Your task to perform on an android device: Open the calculator Image 0: 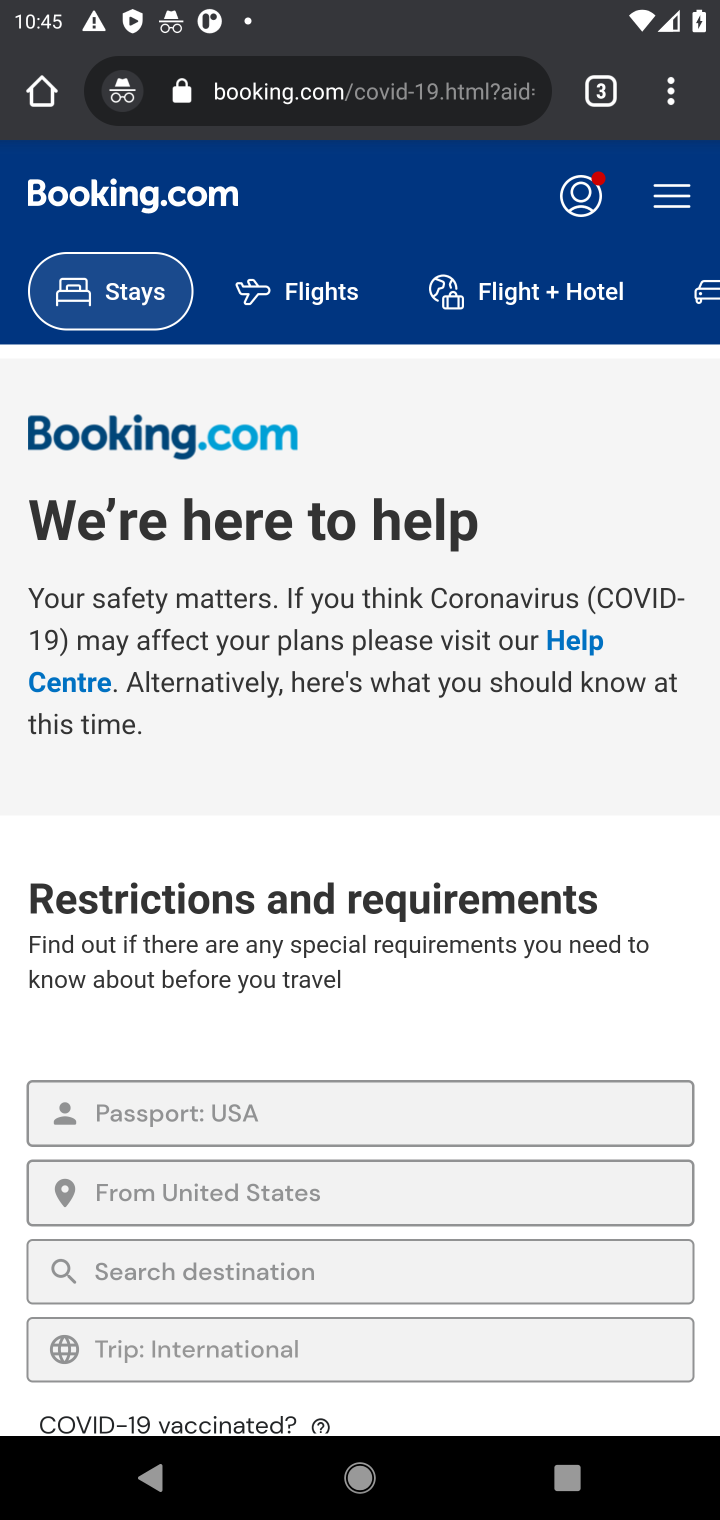
Step 0: press home button
Your task to perform on an android device: Open the calculator Image 1: 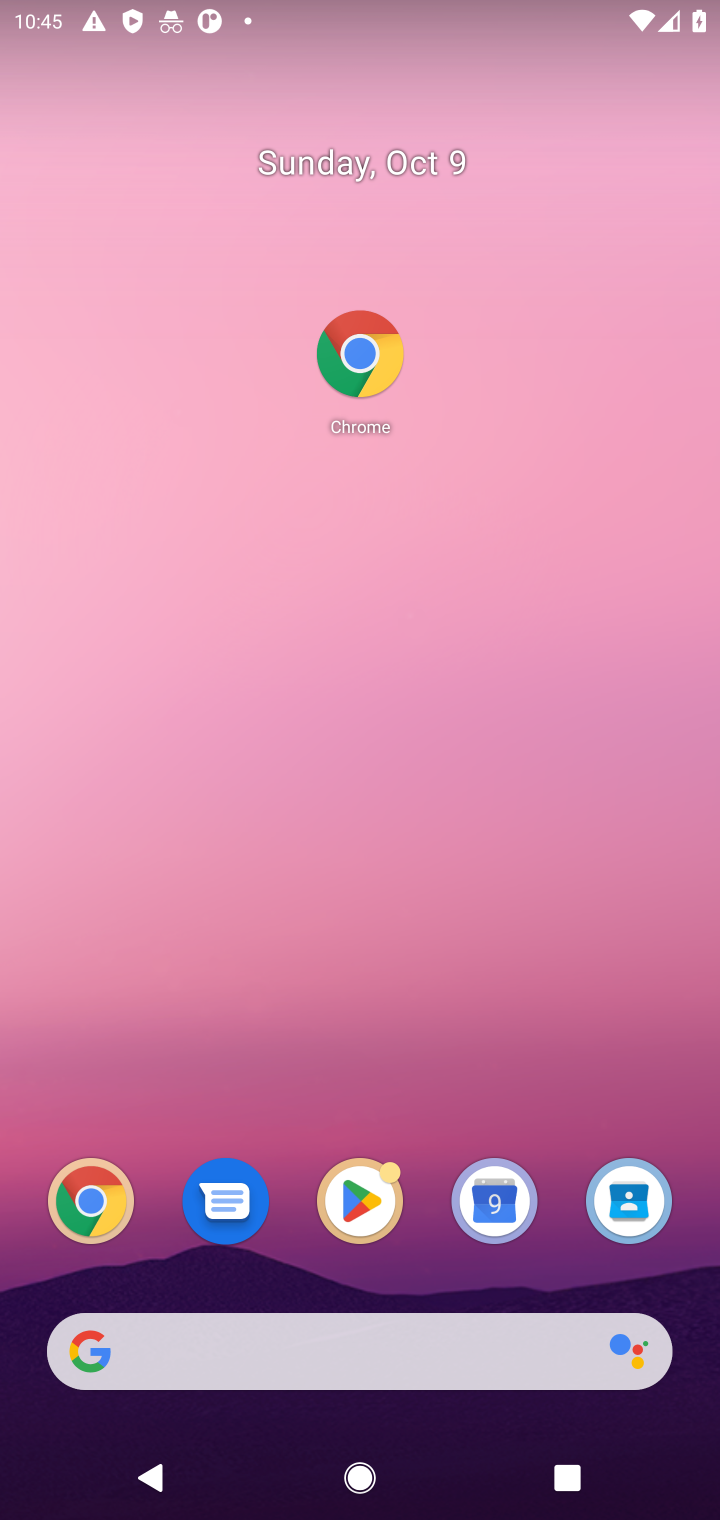
Step 1: drag from (422, 1289) to (193, 80)
Your task to perform on an android device: Open the calculator Image 2: 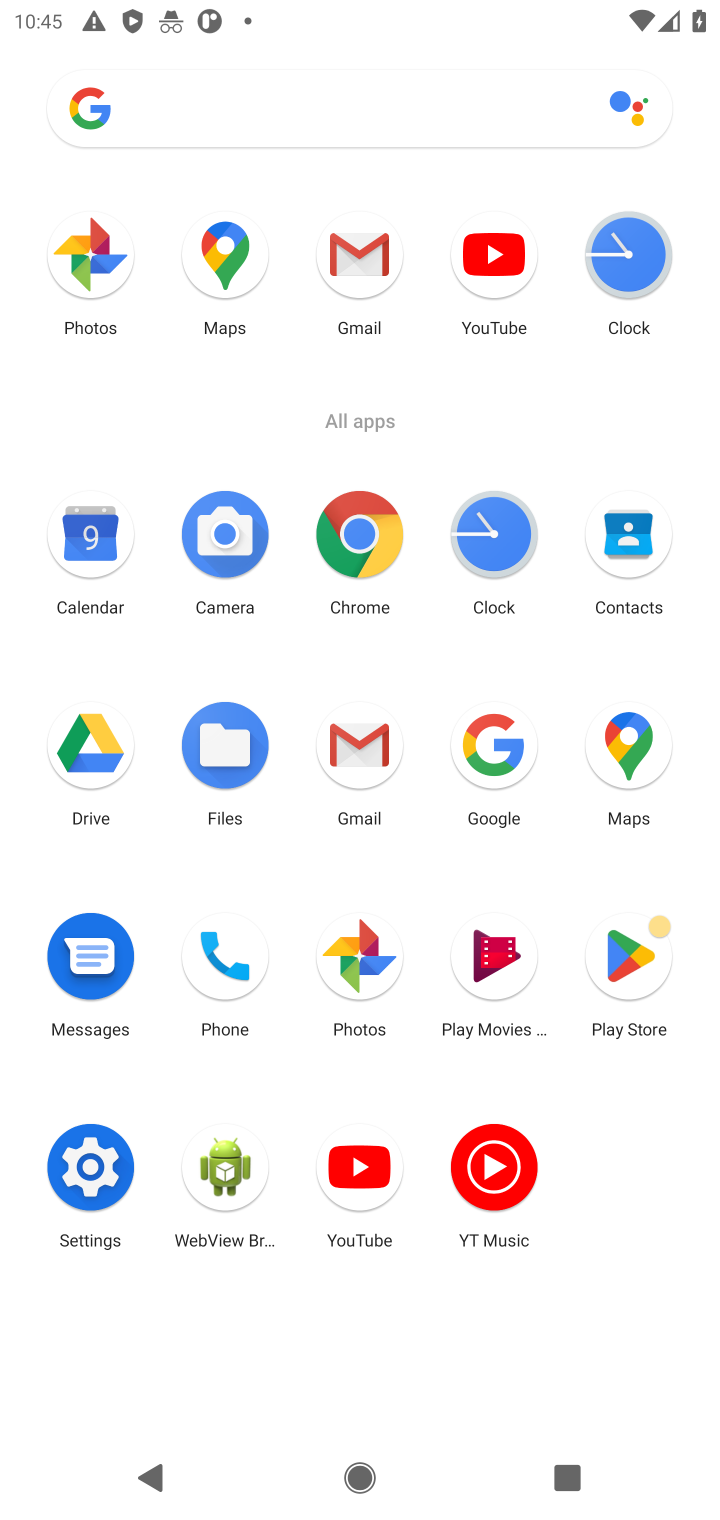
Step 2: click (640, 951)
Your task to perform on an android device: Open the calculator Image 3: 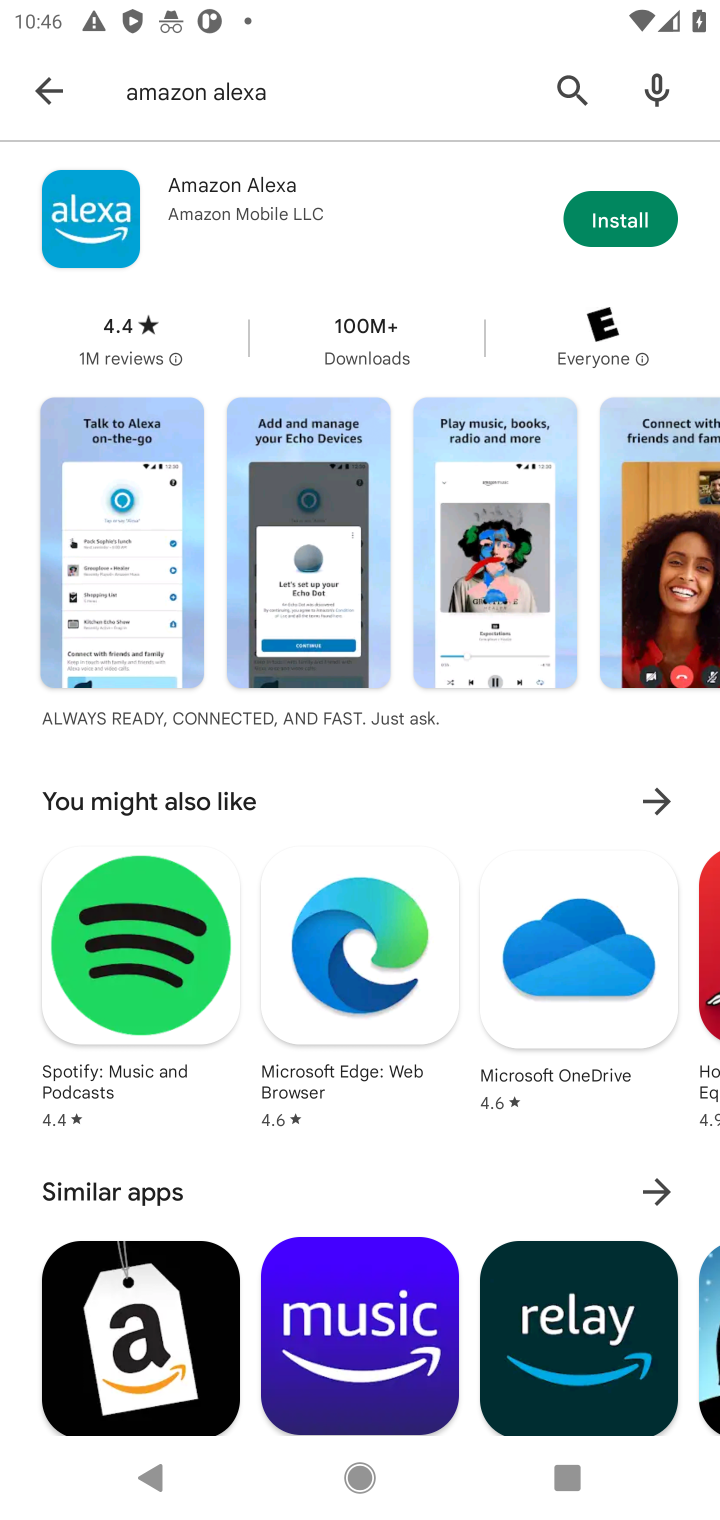
Step 3: click (250, 91)
Your task to perform on an android device: Open the calculator Image 4: 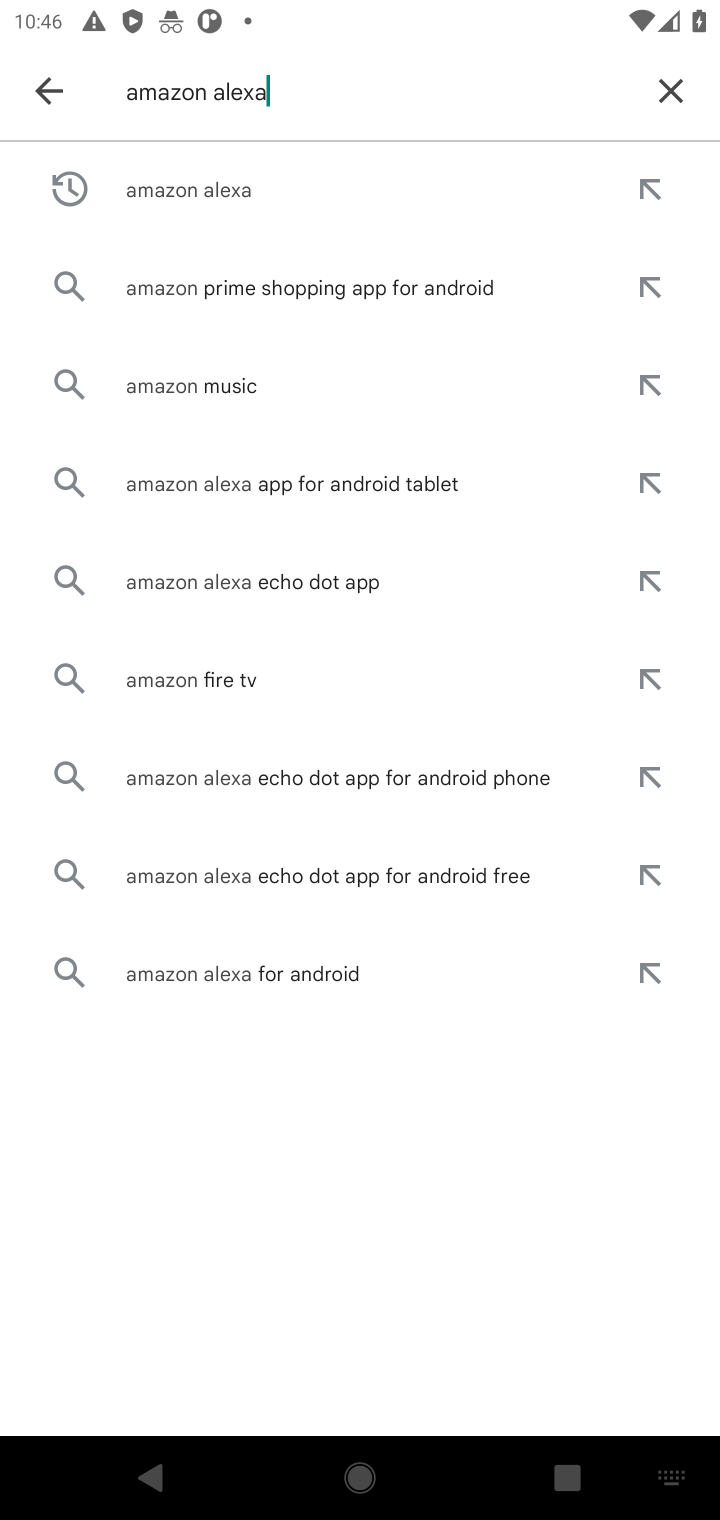
Step 4: click (658, 97)
Your task to perform on an android device: Open the calculator Image 5: 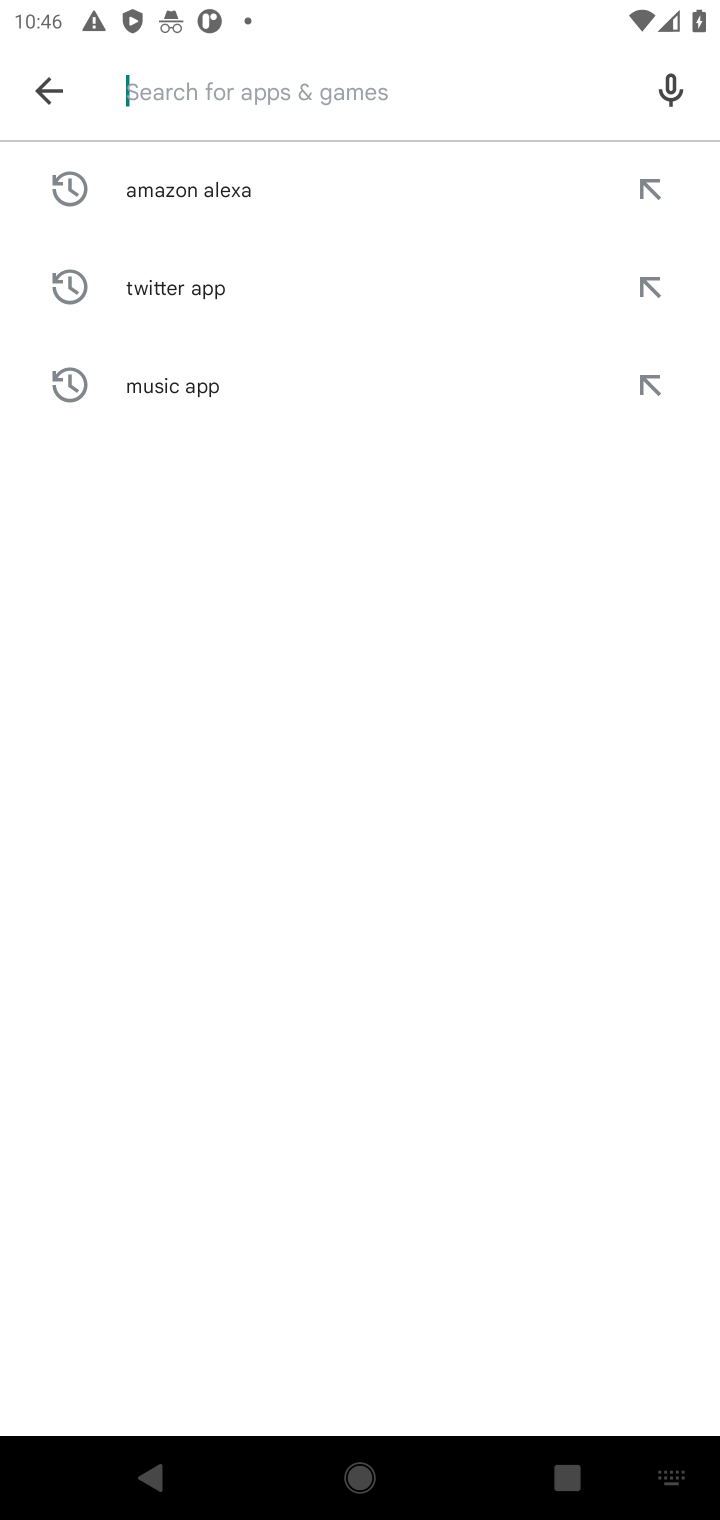
Step 5: type "calculator"
Your task to perform on an android device: Open the calculator Image 6: 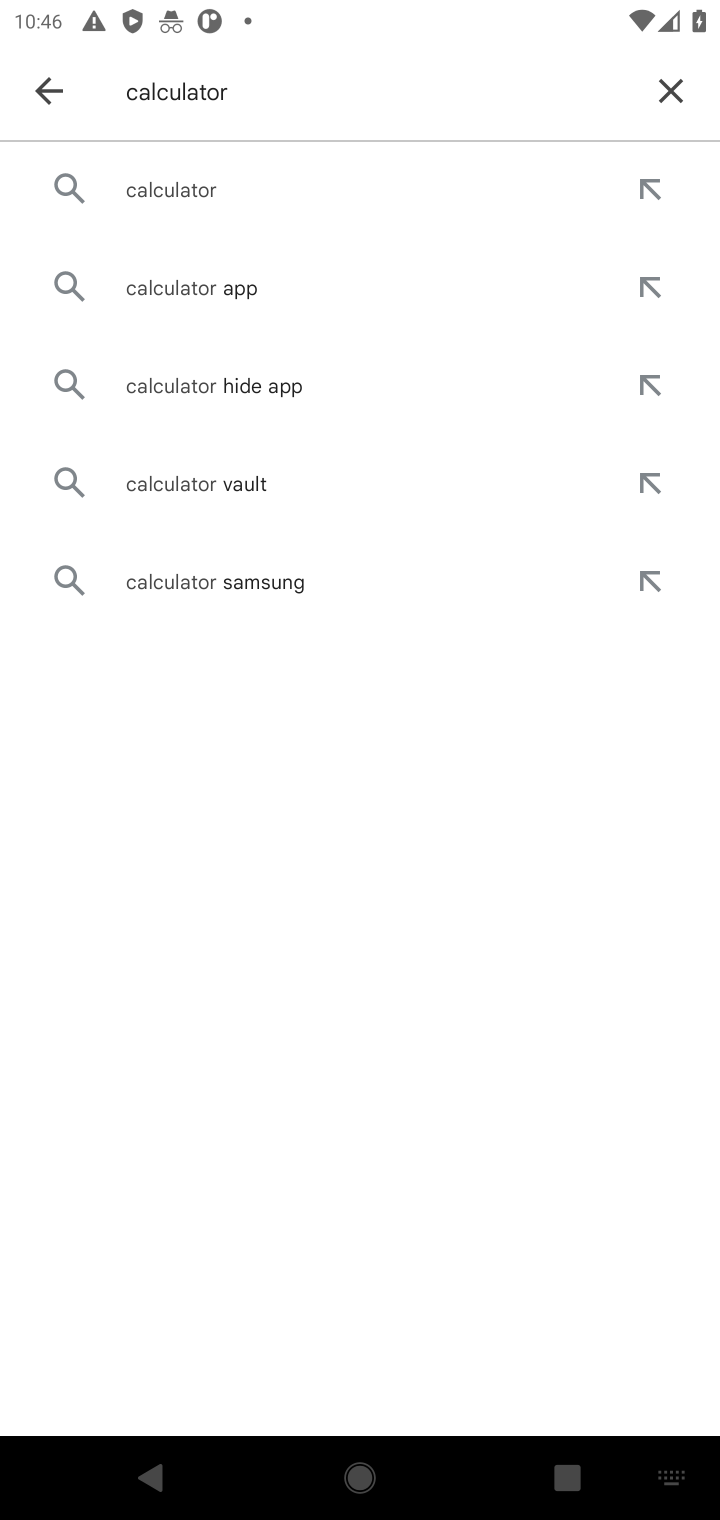
Step 6: click (169, 203)
Your task to perform on an android device: Open the calculator Image 7: 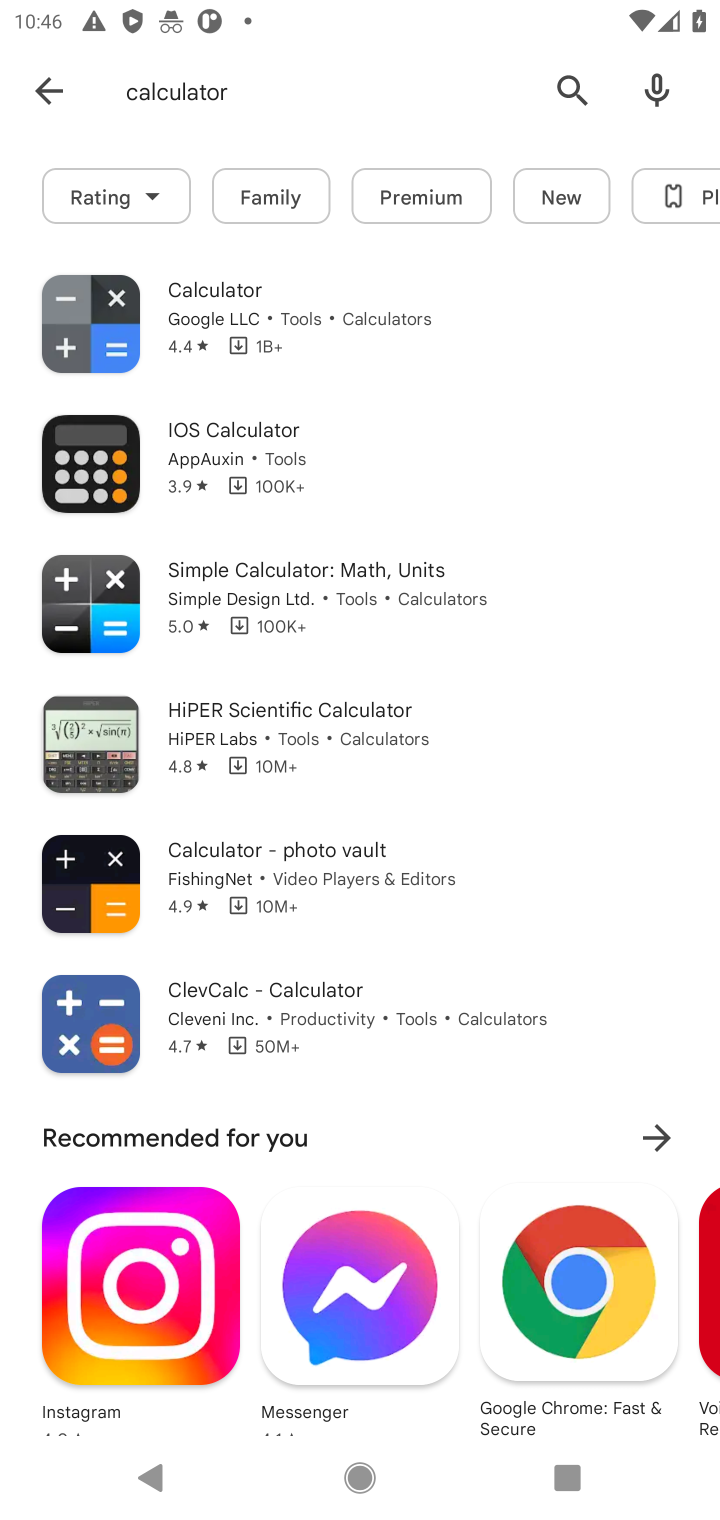
Step 7: click (229, 308)
Your task to perform on an android device: Open the calculator Image 8: 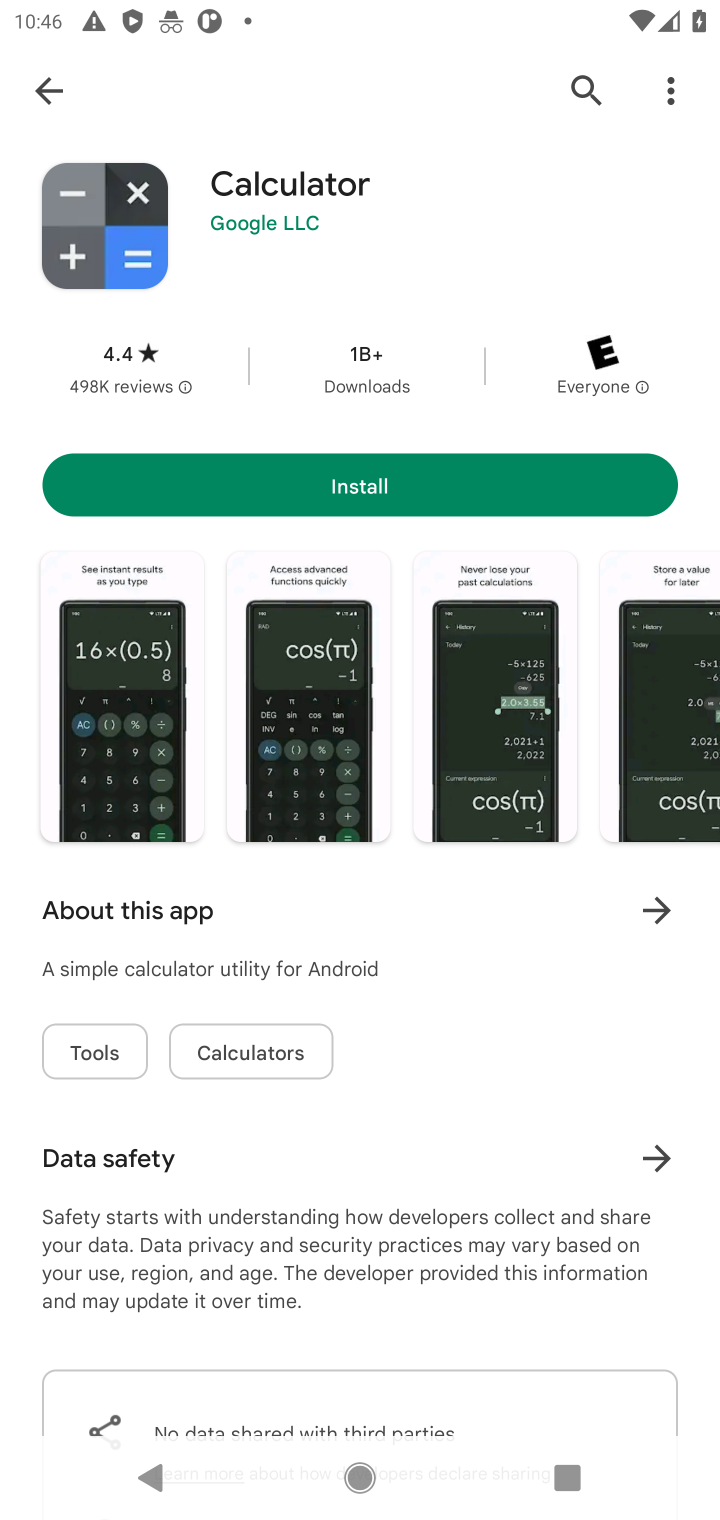
Step 8: task complete